Your task to perform on an android device: Clear the shopping cart on target.com. Search for macbook air on target.com, select the first entry, add it to the cart, then select checkout. Image 0: 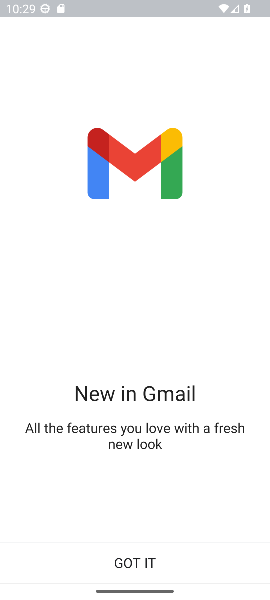
Step 0: press home button
Your task to perform on an android device: Clear the shopping cart on target.com. Search for macbook air on target.com, select the first entry, add it to the cart, then select checkout. Image 1: 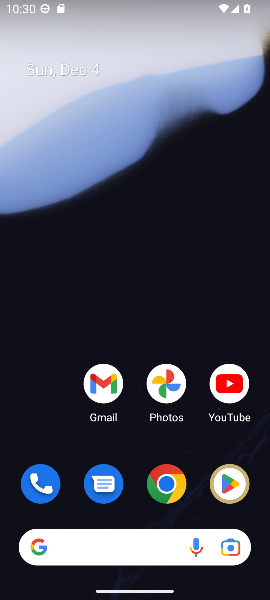
Step 1: click (162, 481)
Your task to perform on an android device: Clear the shopping cart on target.com. Search for macbook air on target.com, select the first entry, add it to the cart, then select checkout. Image 2: 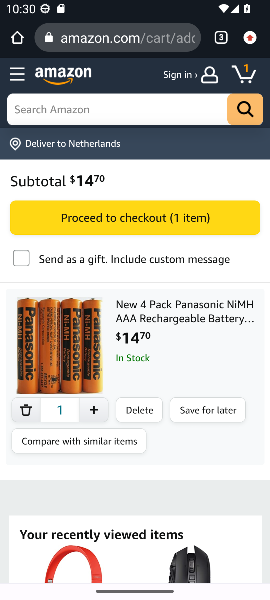
Step 2: click (125, 36)
Your task to perform on an android device: Clear the shopping cart on target.com. Search for macbook air on target.com, select the first entry, add it to the cart, then select checkout. Image 3: 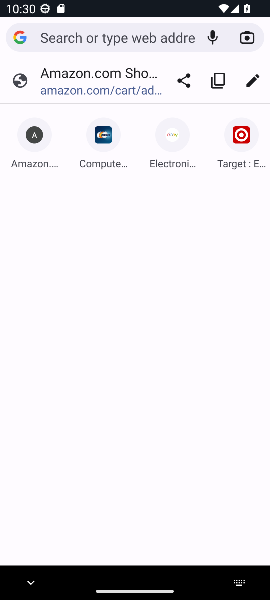
Step 3: click (231, 156)
Your task to perform on an android device: Clear the shopping cart on target.com. Search for macbook air on target.com, select the first entry, add it to the cart, then select checkout. Image 4: 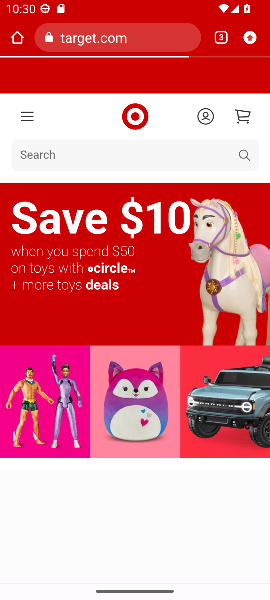
Step 4: click (241, 123)
Your task to perform on an android device: Clear the shopping cart on target.com. Search for macbook air on target.com, select the first entry, add it to the cart, then select checkout. Image 5: 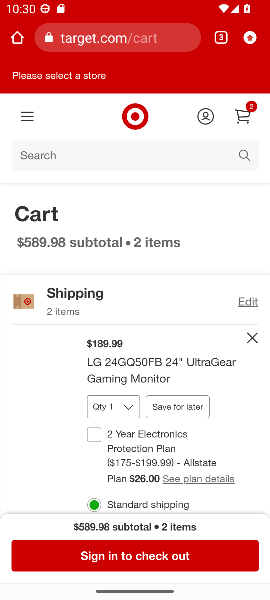
Step 5: click (259, 338)
Your task to perform on an android device: Clear the shopping cart on target.com. Search for macbook air on target.com, select the first entry, add it to the cart, then select checkout. Image 6: 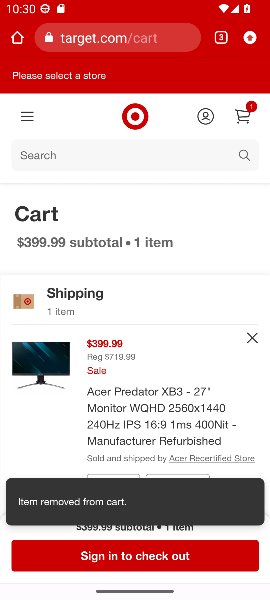
Step 6: click (259, 339)
Your task to perform on an android device: Clear the shopping cart on target.com. Search for macbook air on target.com, select the first entry, add it to the cart, then select checkout. Image 7: 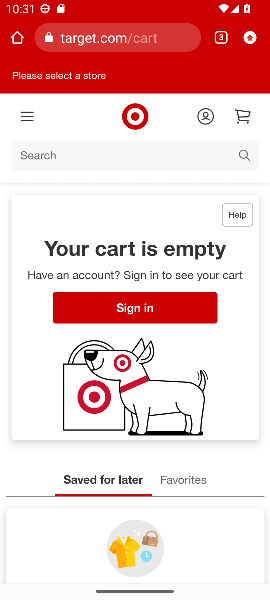
Step 7: click (27, 156)
Your task to perform on an android device: Clear the shopping cart on target.com. Search for macbook air on target.com, select the first entry, add it to the cart, then select checkout. Image 8: 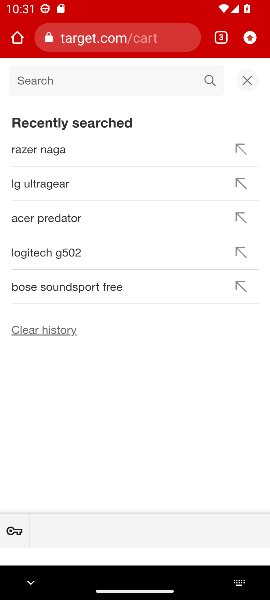
Step 8: type " macbook air"
Your task to perform on an android device: Clear the shopping cart on target.com. Search for macbook air on target.com, select the first entry, add it to the cart, then select checkout. Image 9: 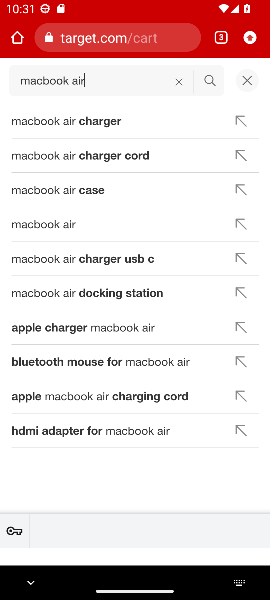
Step 9: click (205, 82)
Your task to perform on an android device: Clear the shopping cart on target.com. Search for macbook air on target.com, select the first entry, add it to the cart, then select checkout. Image 10: 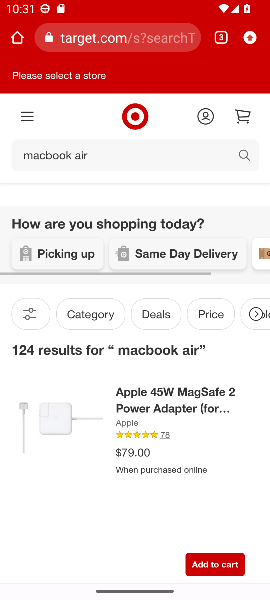
Step 10: drag from (130, 356) to (119, 178)
Your task to perform on an android device: Clear the shopping cart on target.com. Search for macbook air on target.com, select the first entry, add it to the cart, then select checkout. Image 11: 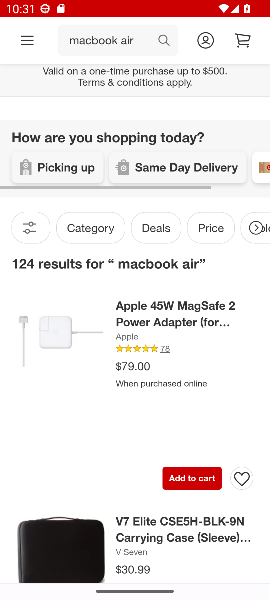
Step 11: click (199, 328)
Your task to perform on an android device: Clear the shopping cart on target.com. Search for macbook air on target.com, select the first entry, add it to the cart, then select checkout. Image 12: 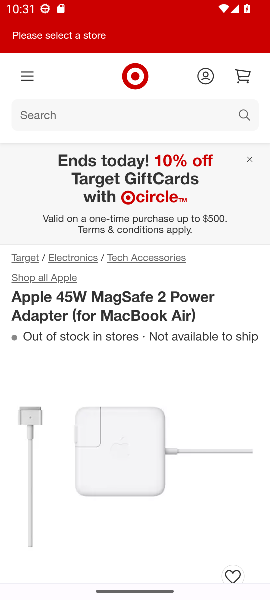
Step 12: drag from (140, 380) to (150, 168)
Your task to perform on an android device: Clear the shopping cart on target.com. Search for macbook air on target.com, select the first entry, add it to the cart, then select checkout. Image 13: 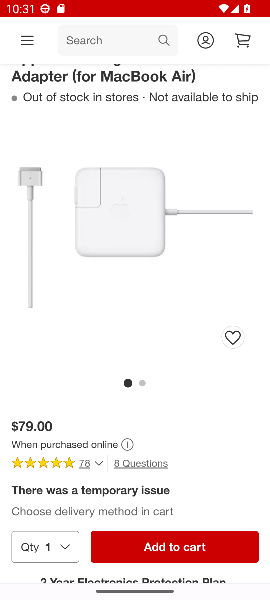
Step 13: drag from (122, 337) to (155, 176)
Your task to perform on an android device: Clear the shopping cart on target.com. Search for macbook air on target.com, select the first entry, add it to the cart, then select checkout. Image 14: 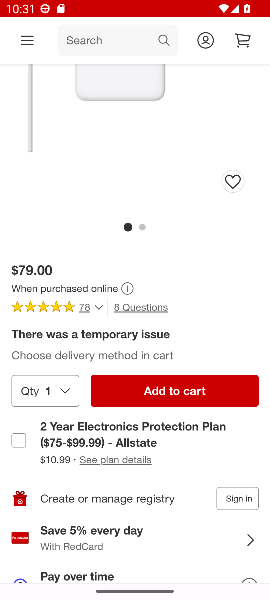
Step 14: click (149, 387)
Your task to perform on an android device: Clear the shopping cart on target.com. Search for macbook air on target.com, select the first entry, add it to the cart, then select checkout. Image 15: 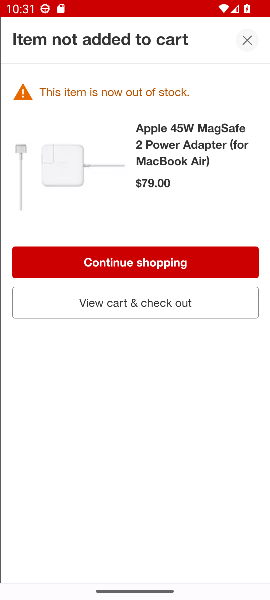
Step 15: click (131, 302)
Your task to perform on an android device: Clear the shopping cart on target.com. Search for macbook air on target.com, select the first entry, add it to the cart, then select checkout. Image 16: 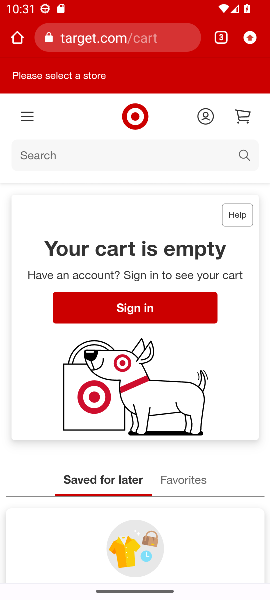
Step 16: task complete